Your task to perform on an android device: see creations saved in the google photos Image 0: 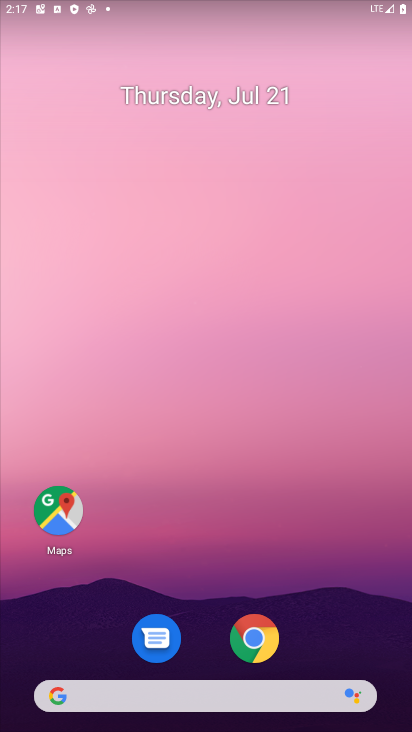
Step 0: drag from (252, 711) to (305, 47)
Your task to perform on an android device: see creations saved in the google photos Image 1: 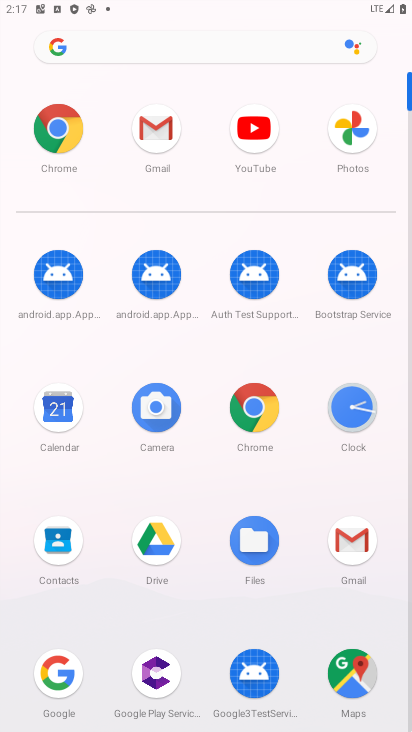
Step 1: drag from (258, 583) to (338, 95)
Your task to perform on an android device: see creations saved in the google photos Image 2: 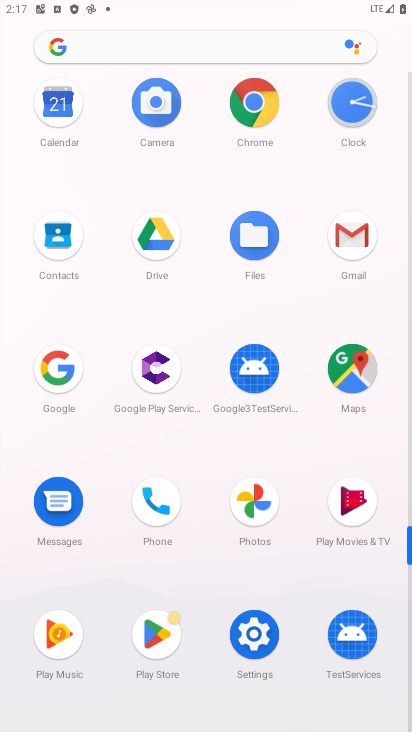
Step 2: click (249, 503)
Your task to perform on an android device: see creations saved in the google photos Image 3: 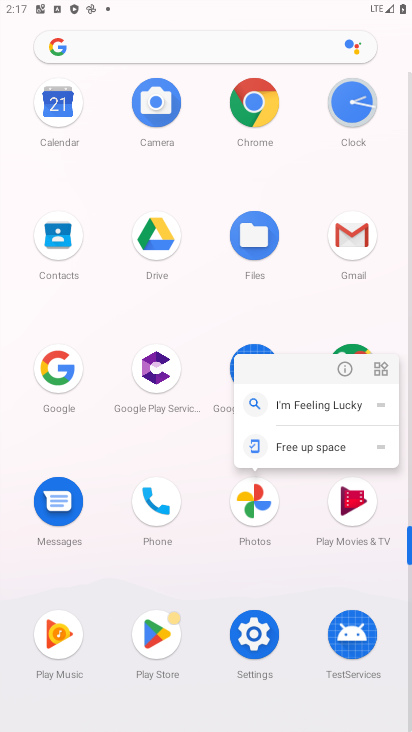
Step 3: click (267, 502)
Your task to perform on an android device: see creations saved in the google photos Image 4: 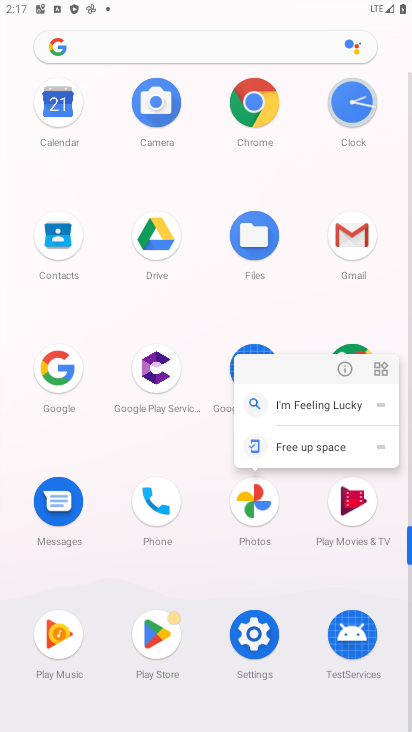
Step 4: click (267, 502)
Your task to perform on an android device: see creations saved in the google photos Image 5: 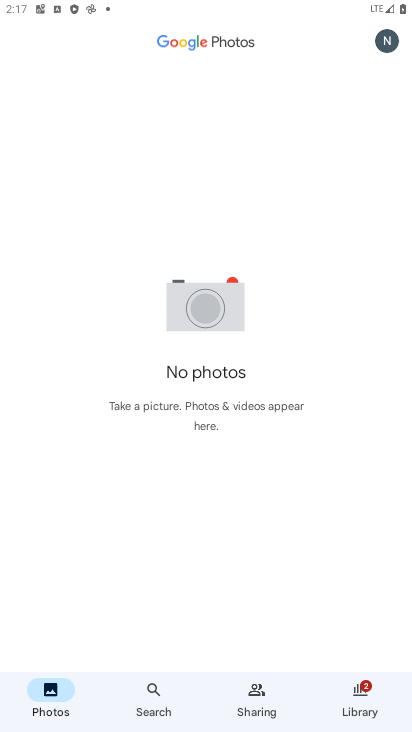
Step 5: click (136, 692)
Your task to perform on an android device: see creations saved in the google photos Image 6: 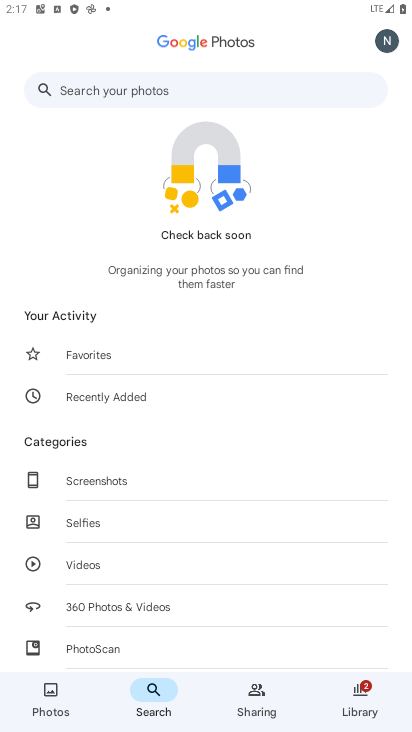
Step 6: drag from (322, 572) to (244, 32)
Your task to perform on an android device: see creations saved in the google photos Image 7: 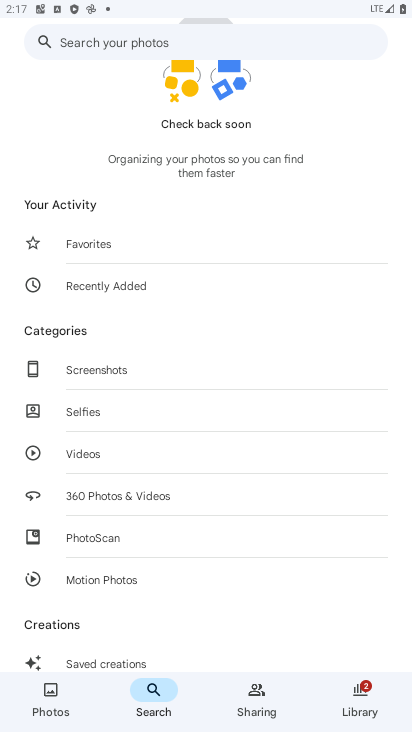
Step 7: click (112, 658)
Your task to perform on an android device: see creations saved in the google photos Image 8: 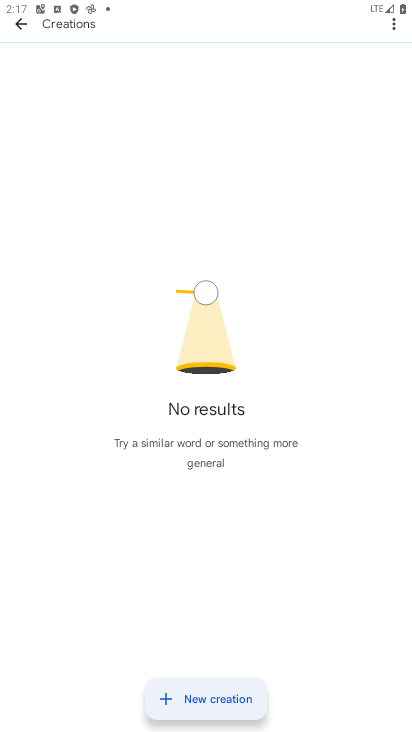
Step 8: task complete